Your task to perform on an android device: change the clock display to digital Image 0: 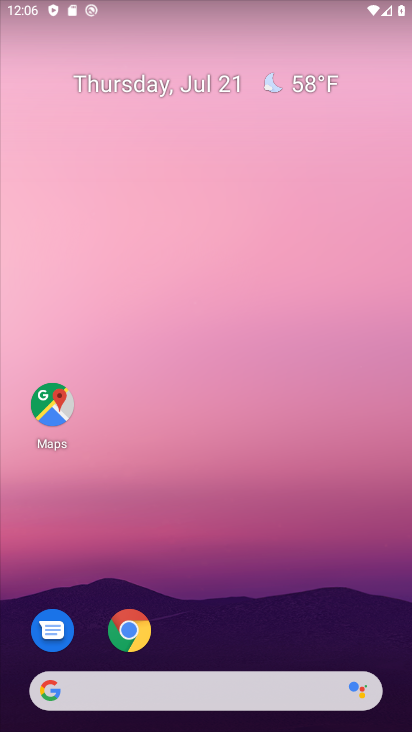
Step 0: drag from (186, 681) to (181, 98)
Your task to perform on an android device: change the clock display to digital Image 1: 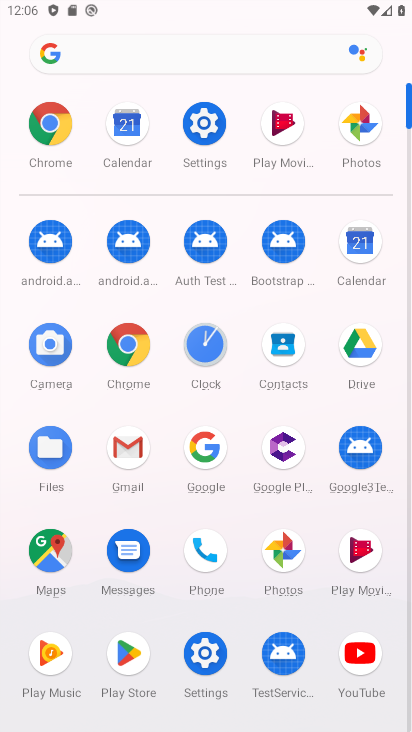
Step 1: click (203, 340)
Your task to perform on an android device: change the clock display to digital Image 2: 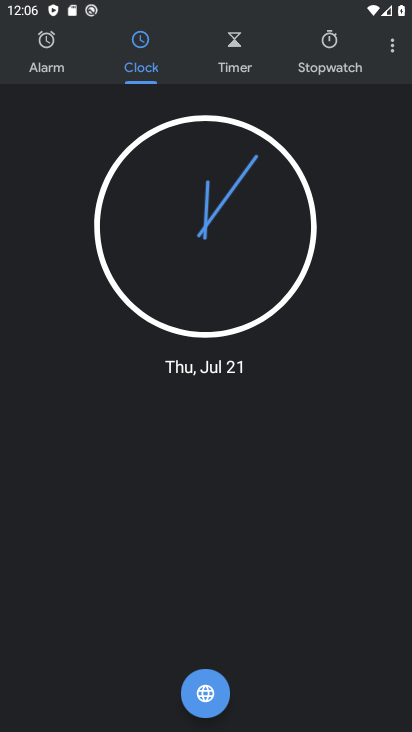
Step 2: click (397, 50)
Your task to perform on an android device: change the clock display to digital Image 3: 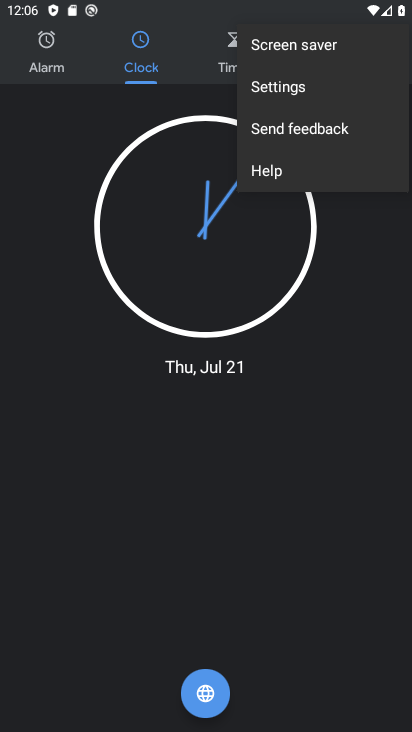
Step 3: click (310, 89)
Your task to perform on an android device: change the clock display to digital Image 4: 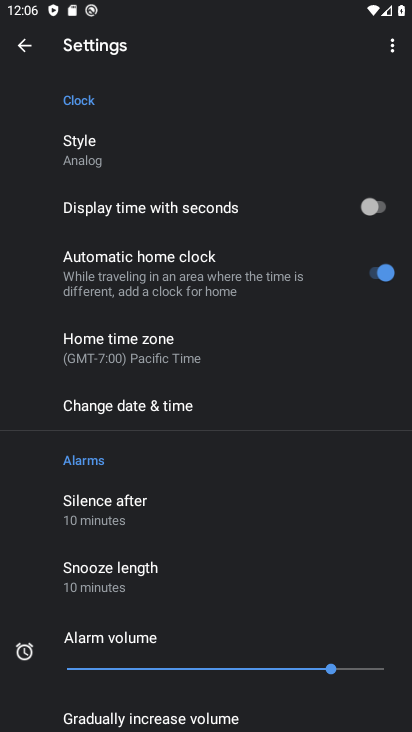
Step 4: click (92, 158)
Your task to perform on an android device: change the clock display to digital Image 5: 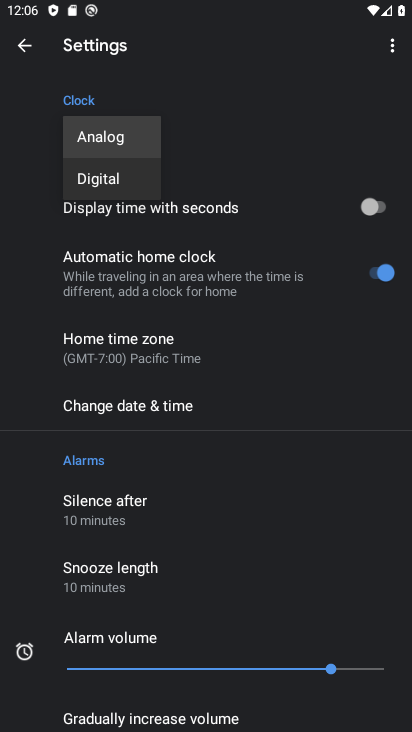
Step 5: click (109, 174)
Your task to perform on an android device: change the clock display to digital Image 6: 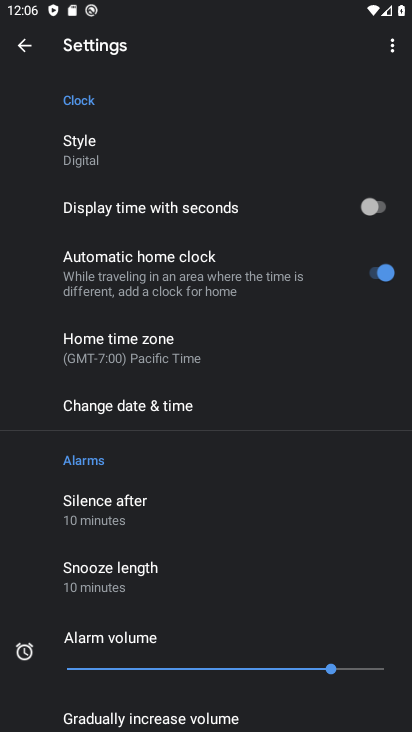
Step 6: task complete